Your task to perform on an android device: turn on translation in the chrome app Image 0: 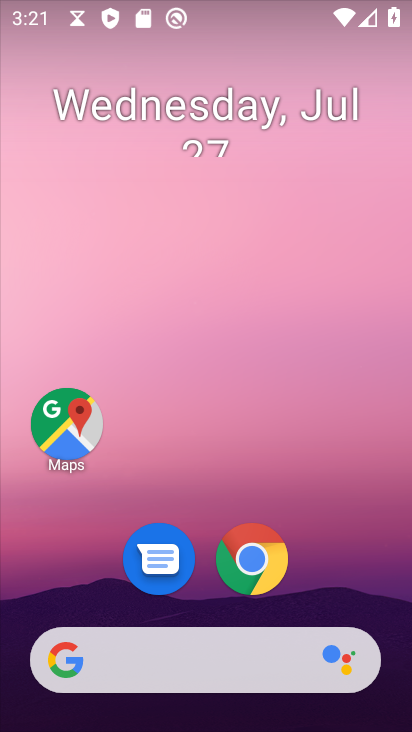
Step 0: drag from (183, 600) to (287, 210)
Your task to perform on an android device: turn on translation in the chrome app Image 1: 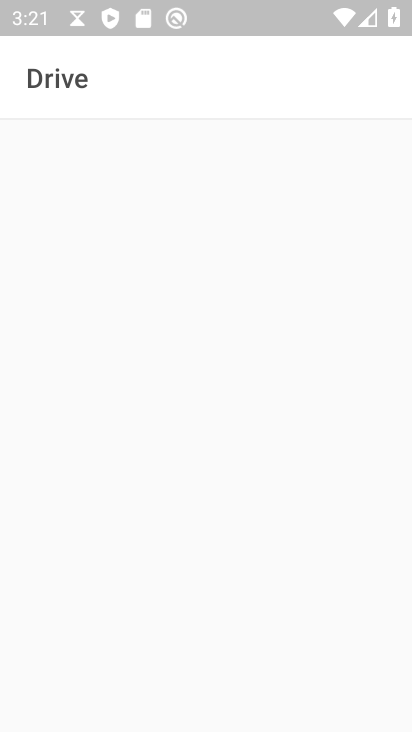
Step 1: press back button
Your task to perform on an android device: turn on translation in the chrome app Image 2: 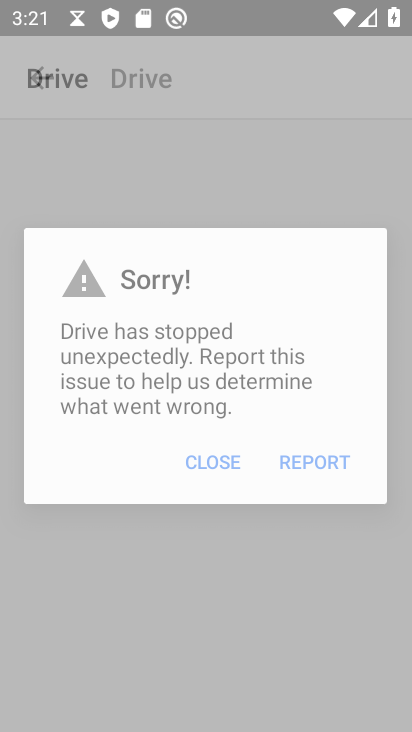
Step 2: press home button
Your task to perform on an android device: turn on translation in the chrome app Image 3: 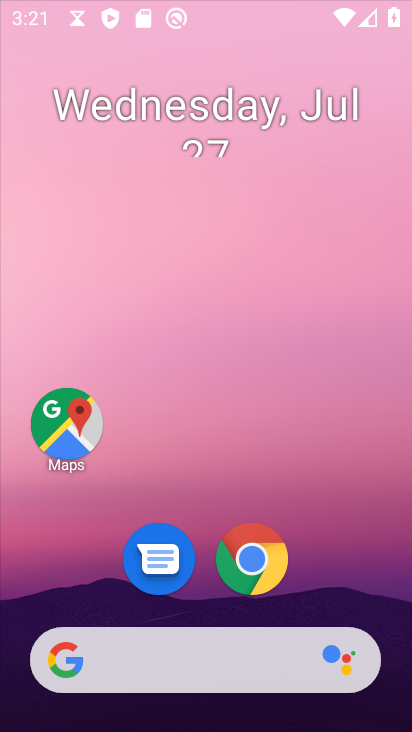
Step 3: click (226, 456)
Your task to perform on an android device: turn on translation in the chrome app Image 4: 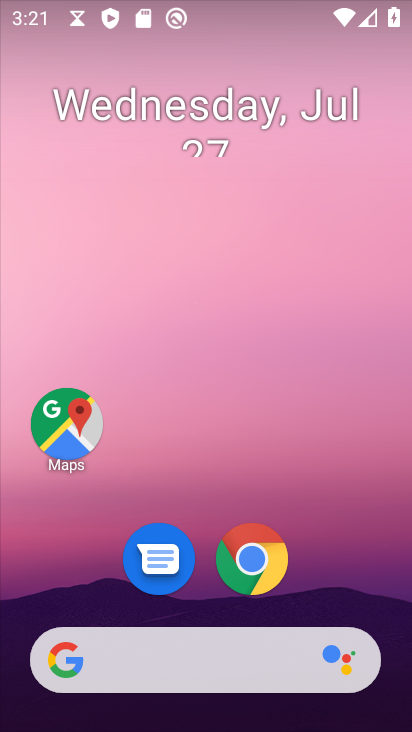
Step 4: drag from (207, 475) to (290, 0)
Your task to perform on an android device: turn on translation in the chrome app Image 5: 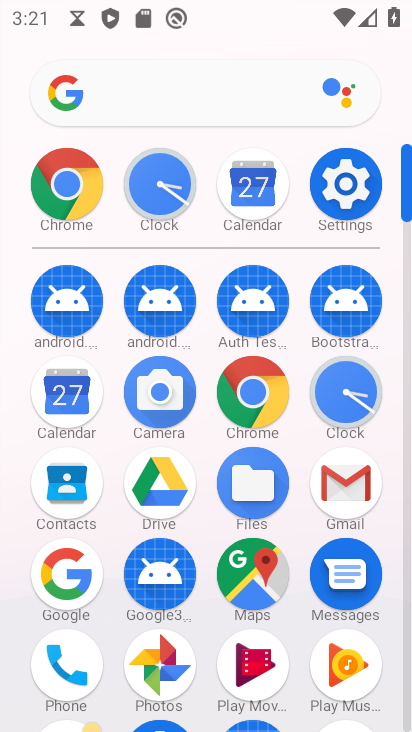
Step 5: click (338, 190)
Your task to perform on an android device: turn on translation in the chrome app Image 6: 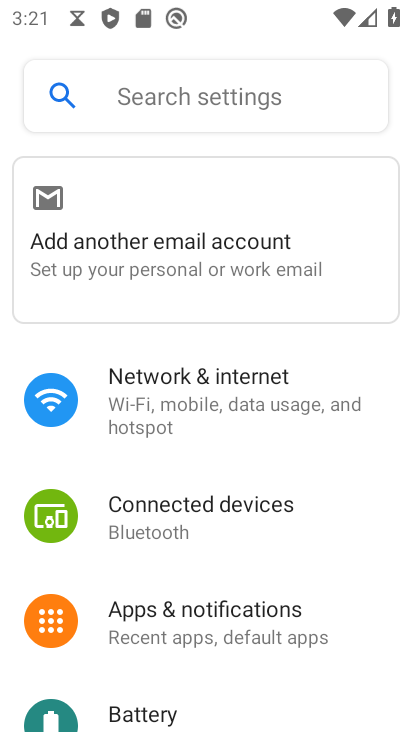
Step 6: drag from (230, 650) to (294, 125)
Your task to perform on an android device: turn on translation in the chrome app Image 7: 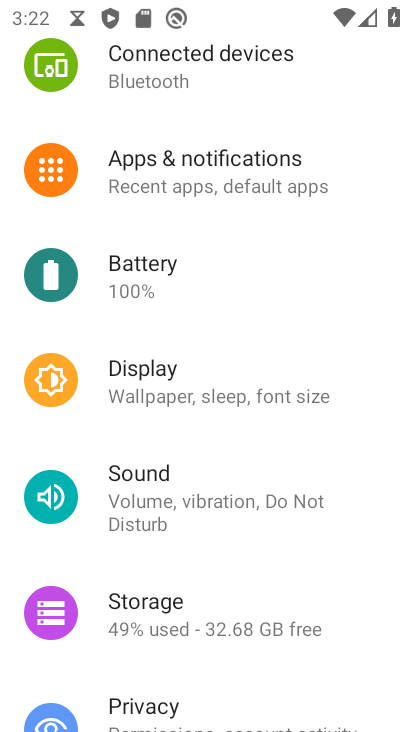
Step 7: press back button
Your task to perform on an android device: turn on translation in the chrome app Image 8: 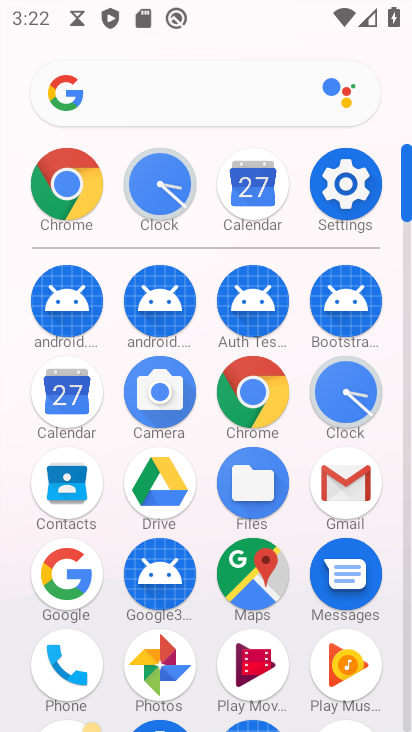
Step 8: click (256, 383)
Your task to perform on an android device: turn on translation in the chrome app Image 9: 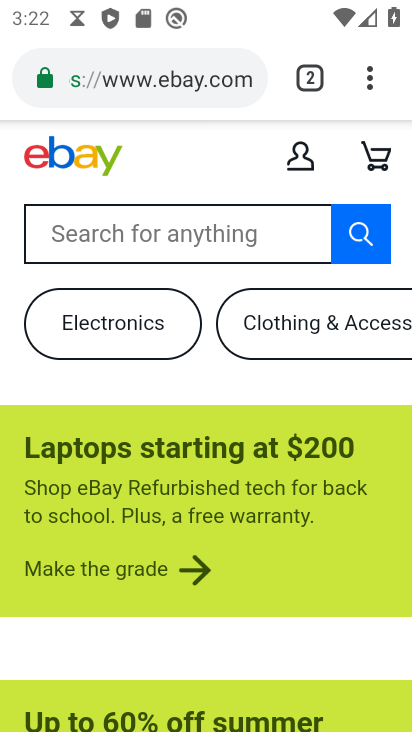
Step 9: drag from (372, 73) to (154, 636)
Your task to perform on an android device: turn on translation in the chrome app Image 10: 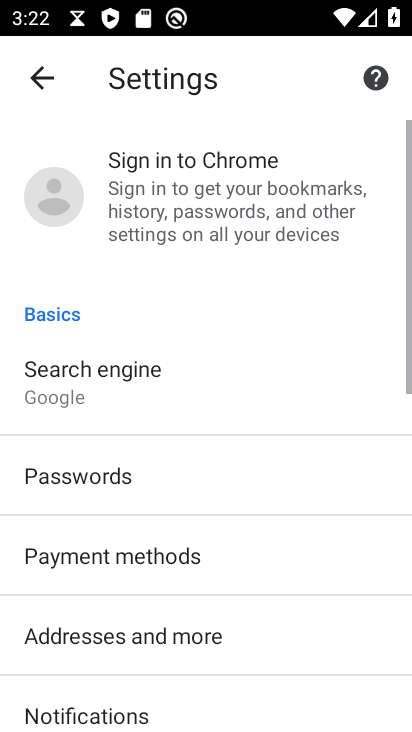
Step 10: drag from (181, 674) to (319, 74)
Your task to perform on an android device: turn on translation in the chrome app Image 11: 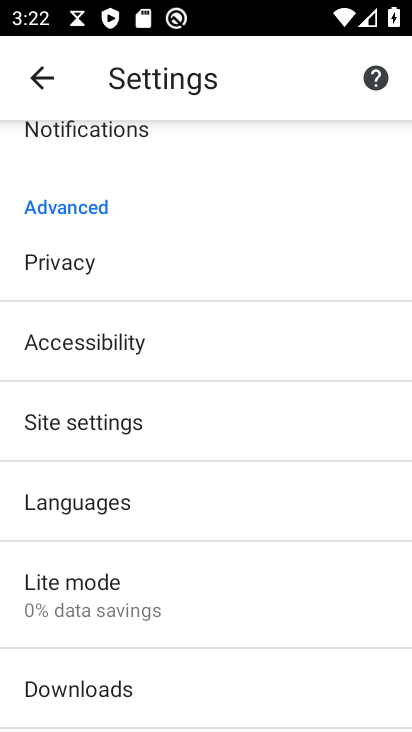
Step 11: click (138, 499)
Your task to perform on an android device: turn on translation in the chrome app Image 12: 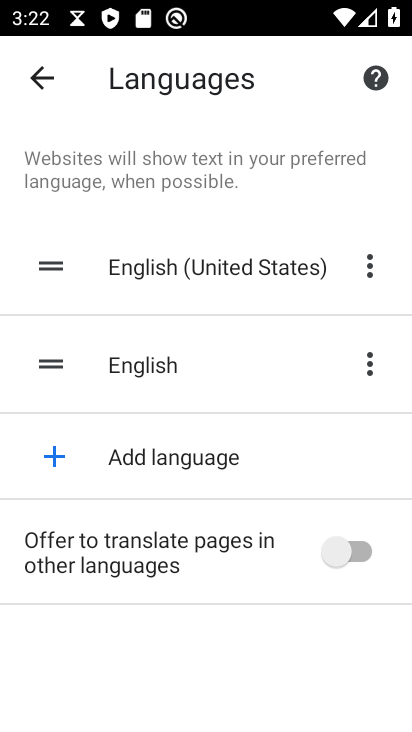
Step 12: click (334, 546)
Your task to perform on an android device: turn on translation in the chrome app Image 13: 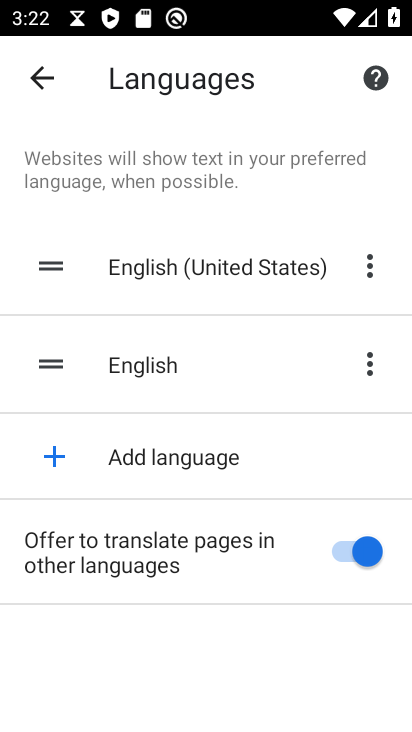
Step 13: task complete